Your task to perform on an android device: check storage Image 0: 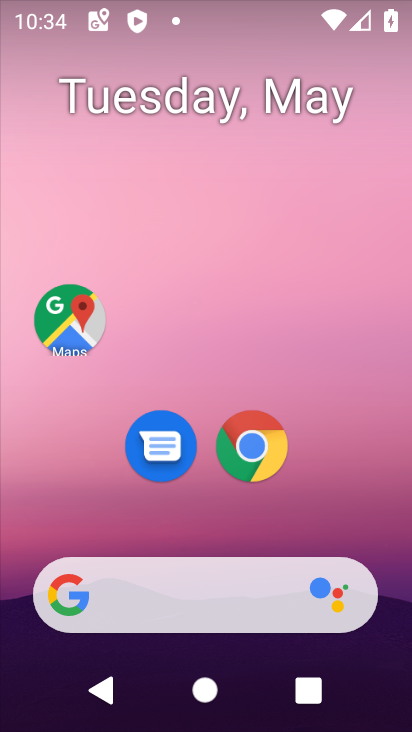
Step 0: drag from (211, 507) to (262, 205)
Your task to perform on an android device: check storage Image 1: 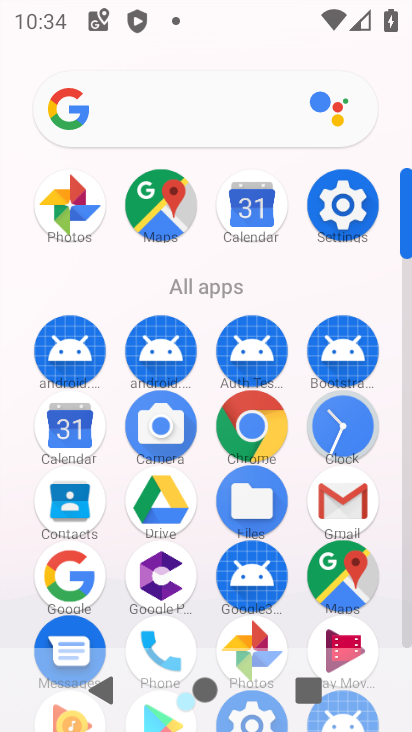
Step 1: click (344, 222)
Your task to perform on an android device: check storage Image 2: 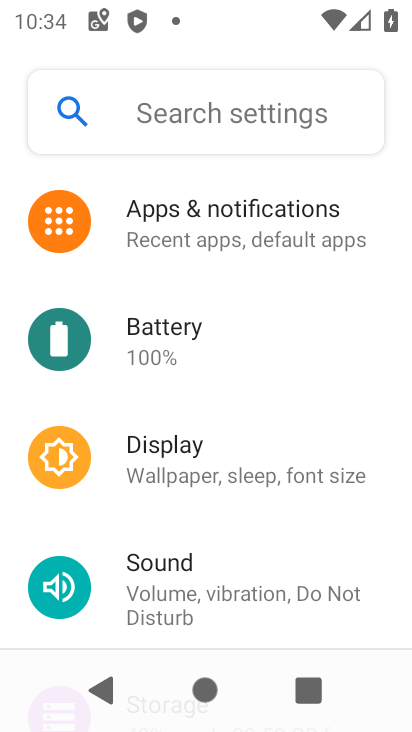
Step 2: drag from (264, 515) to (266, 261)
Your task to perform on an android device: check storage Image 3: 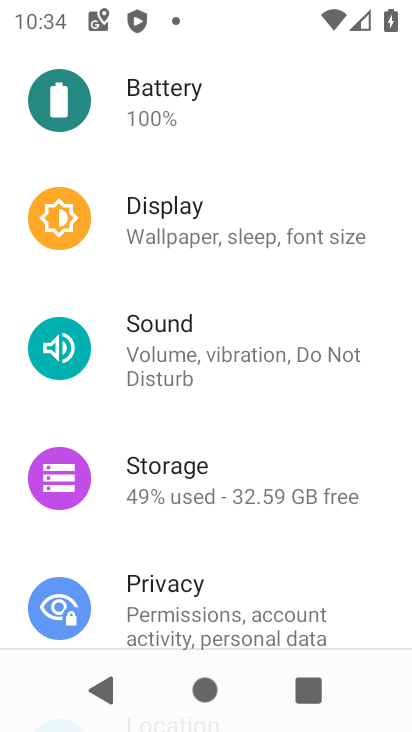
Step 3: click (245, 501)
Your task to perform on an android device: check storage Image 4: 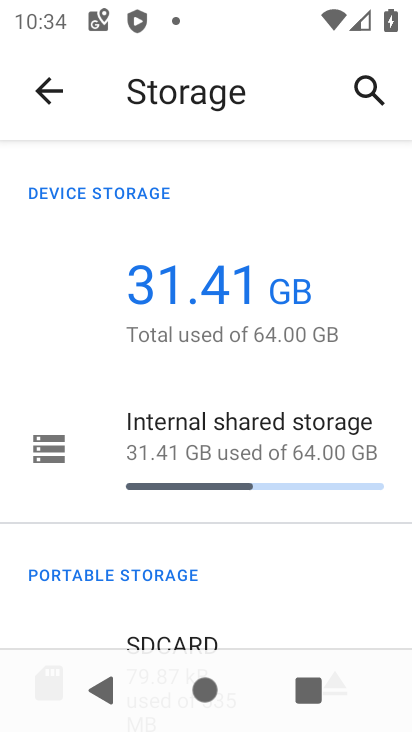
Step 4: click (284, 440)
Your task to perform on an android device: check storage Image 5: 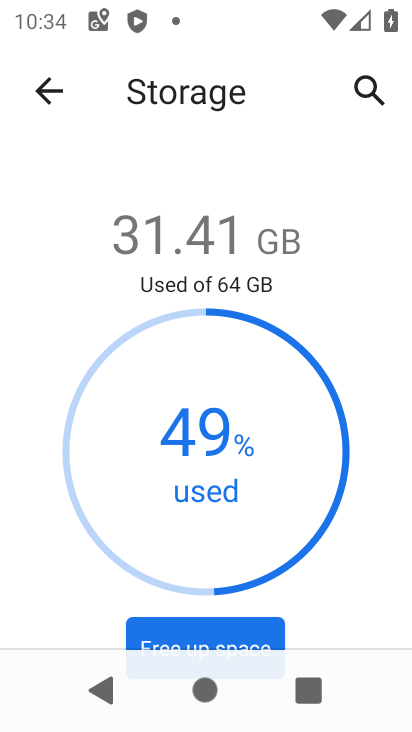
Step 5: task complete